Your task to perform on an android device: uninstall "Flipkart Online Shopping App" Image 0: 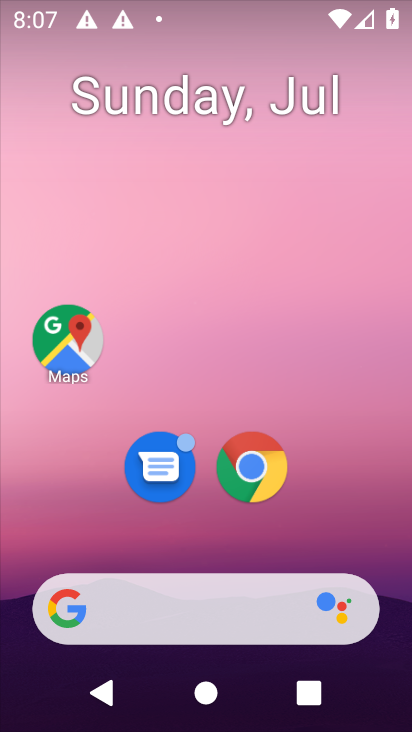
Step 0: drag from (214, 561) to (244, 88)
Your task to perform on an android device: uninstall "Flipkart Online Shopping App" Image 1: 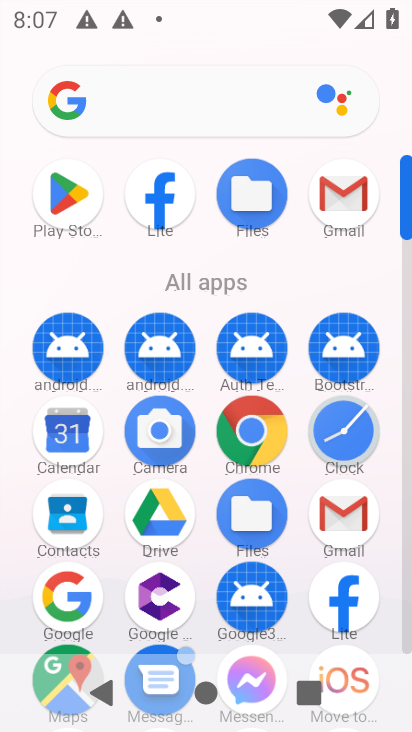
Step 1: drag from (201, 610) to (209, 214)
Your task to perform on an android device: uninstall "Flipkart Online Shopping App" Image 2: 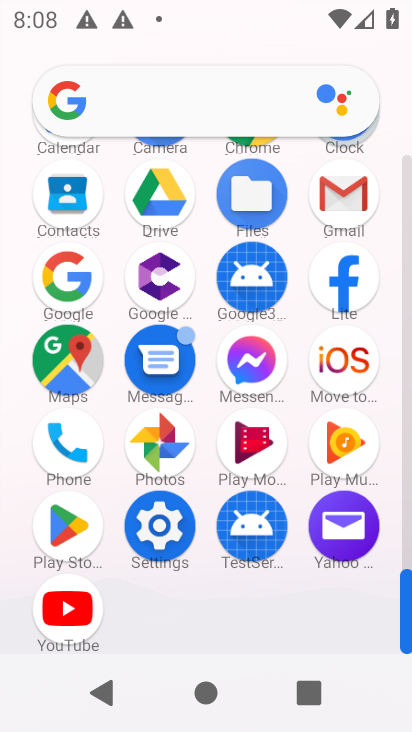
Step 2: click (61, 524)
Your task to perform on an android device: uninstall "Flipkart Online Shopping App" Image 3: 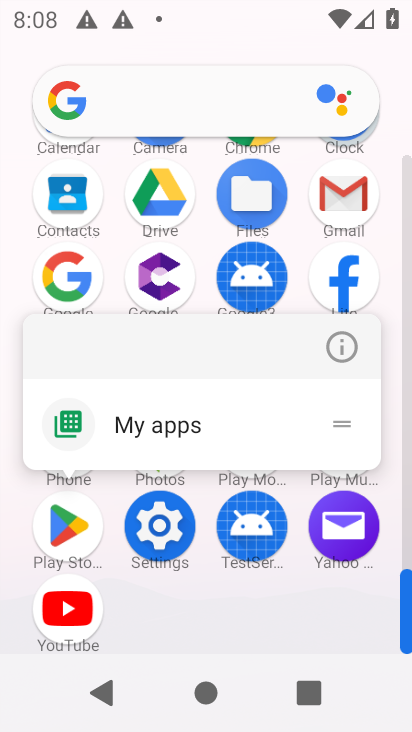
Step 3: click (336, 340)
Your task to perform on an android device: uninstall "Flipkart Online Shopping App" Image 4: 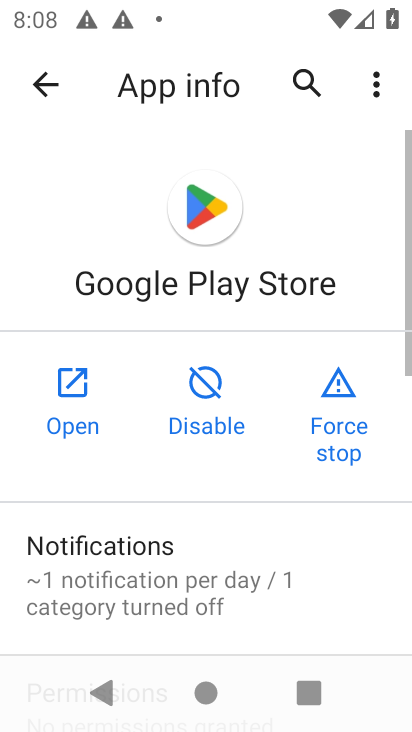
Step 4: click (66, 369)
Your task to perform on an android device: uninstall "Flipkart Online Shopping App" Image 5: 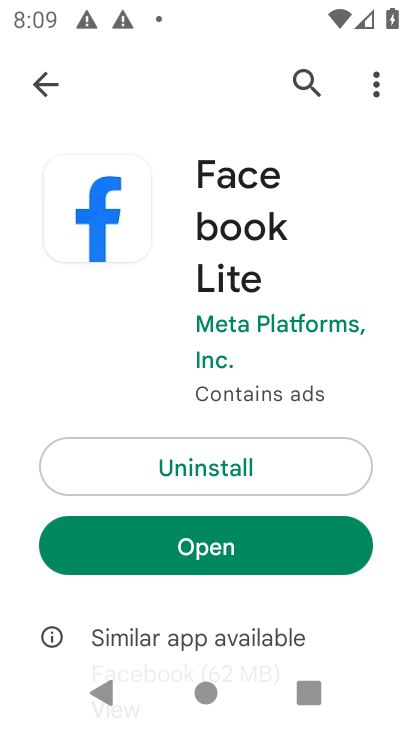
Step 5: click (312, 84)
Your task to perform on an android device: uninstall "Flipkart Online Shopping App" Image 6: 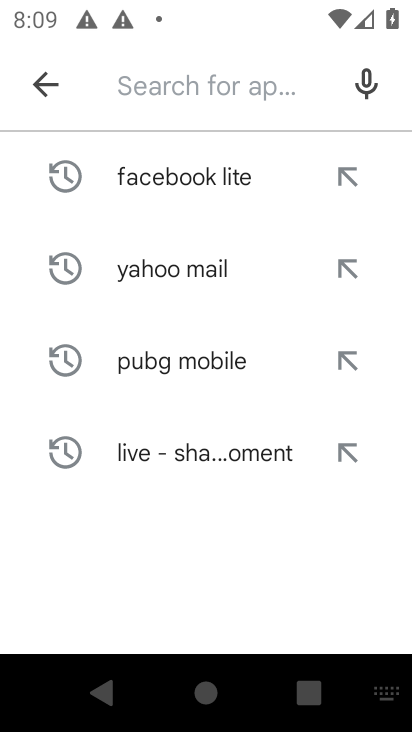
Step 6: type "Flipkart Online Shopping App"
Your task to perform on an android device: uninstall "Flipkart Online Shopping App" Image 7: 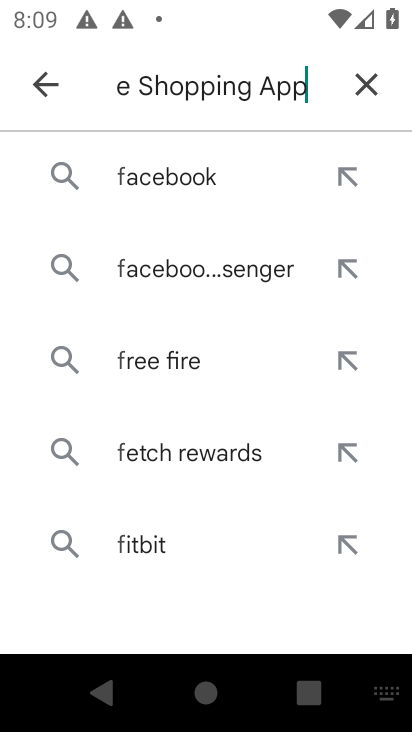
Step 7: type ""
Your task to perform on an android device: uninstall "Flipkart Online Shopping App" Image 8: 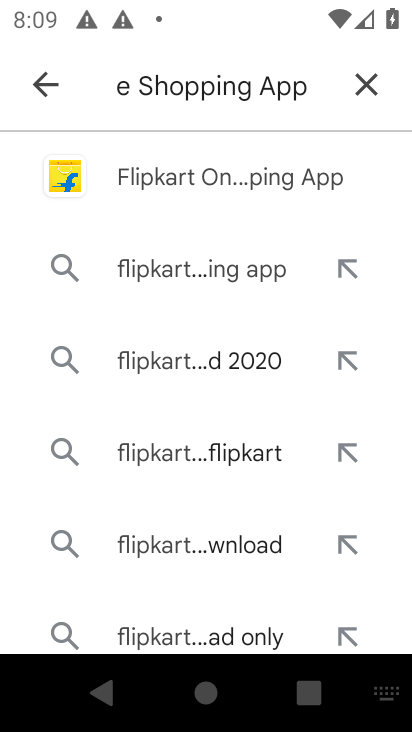
Step 8: click (138, 179)
Your task to perform on an android device: uninstall "Flipkart Online Shopping App" Image 9: 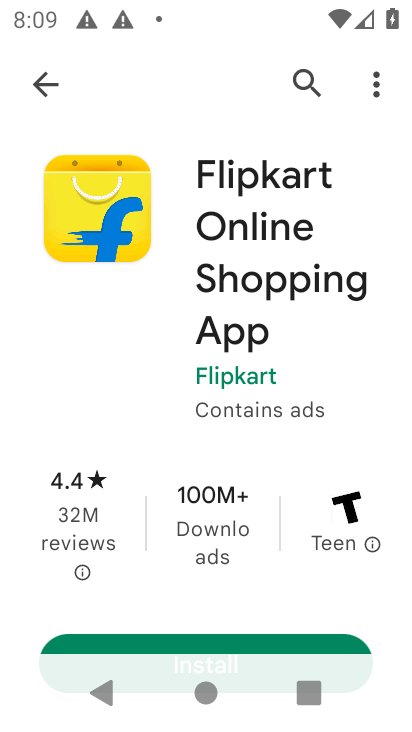
Step 9: task complete